Your task to perform on an android device: Go to accessibility settings Image 0: 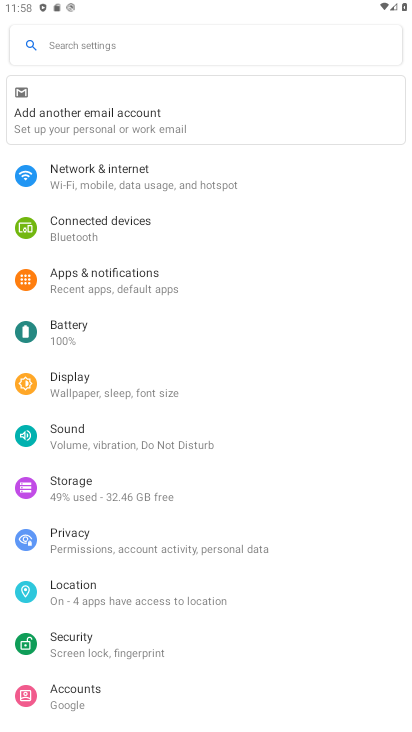
Step 0: press home button
Your task to perform on an android device: Go to accessibility settings Image 1: 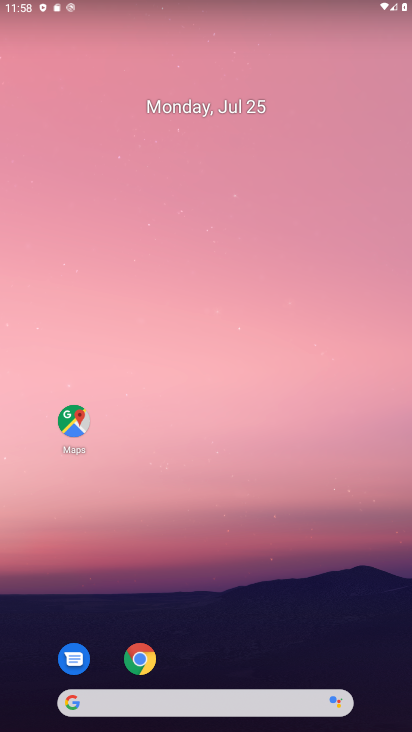
Step 1: drag from (222, 632) to (243, 155)
Your task to perform on an android device: Go to accessibility settings Image 2: 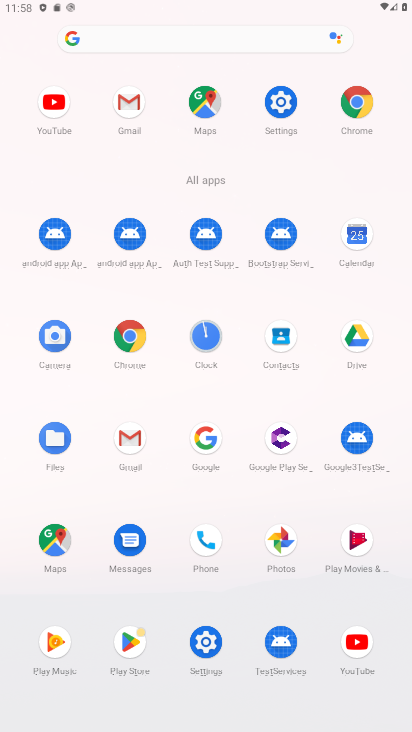
Step 2: click (200, 658)
Your task to perform on an android device: Go to accessibility settings Image 3: 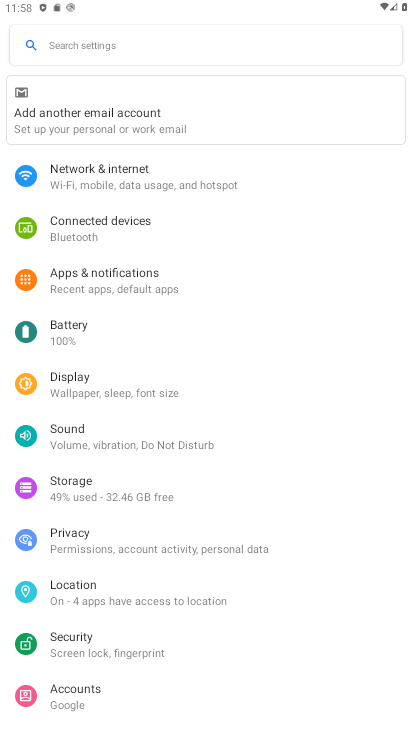
Step 3: drag from (118, 641) to (115, 237)
Your task to perform on an android device: Go to accessibility settings Image 4: 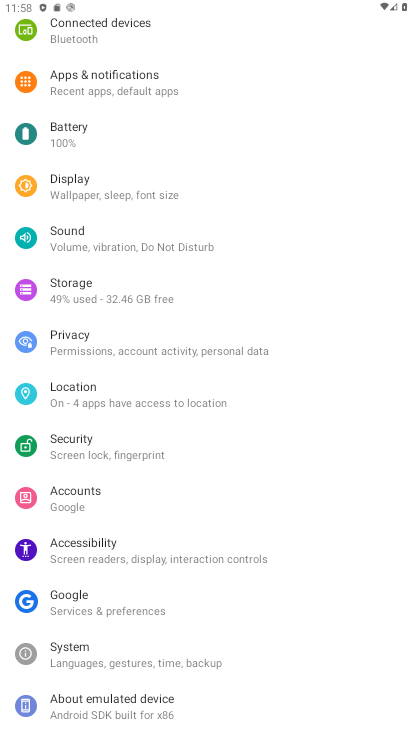
Step 4: click (101, 541)
Your task to perform on an android device: Go to accessibility settings Image 5: 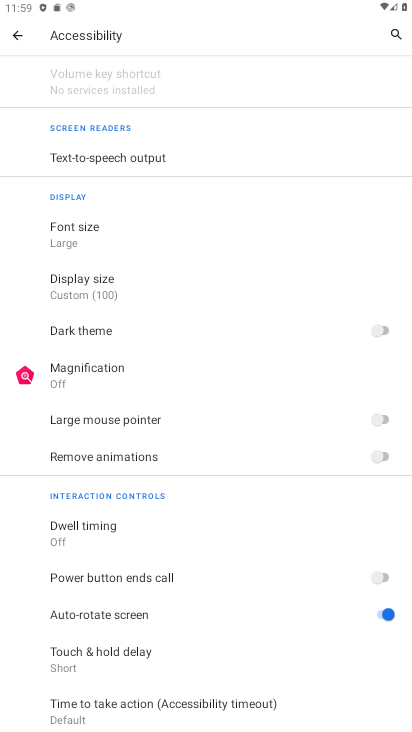
Step 5: task complete